Your task to perform on an android device: Go to battery settings Image 0: 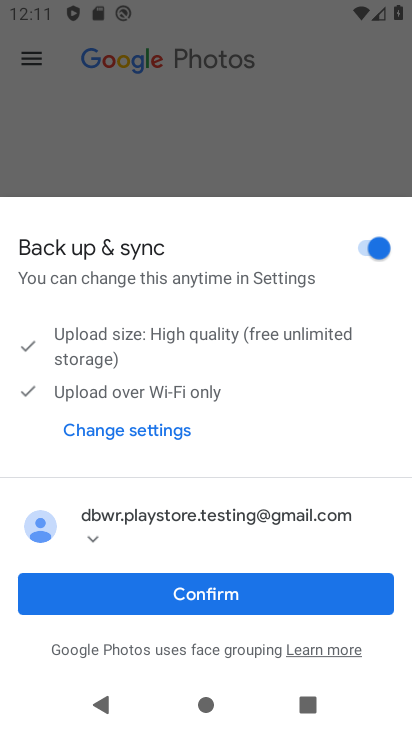
Step 0: press back button
Your task to perform on an android device: Go to battery settings Image 1: 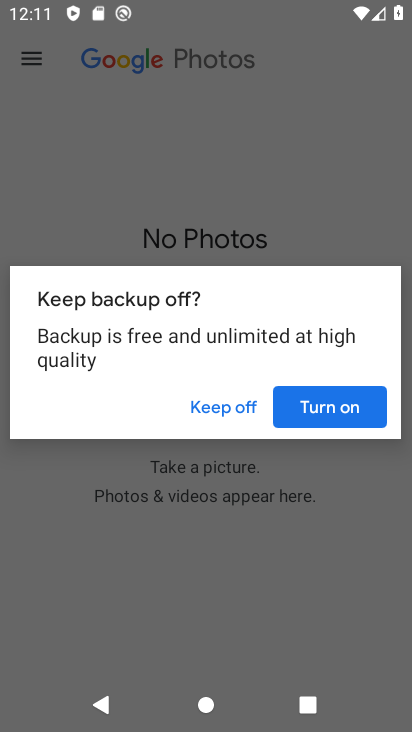
Step 1: press back button
Your task to perform on an android device: Go to battery settings Image 2: 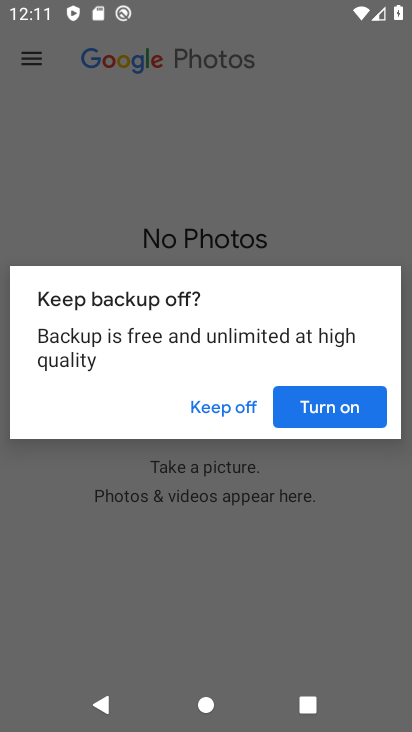
Step 2: press home button
Your task to perform on an android device: Go to battery settings Image 3: 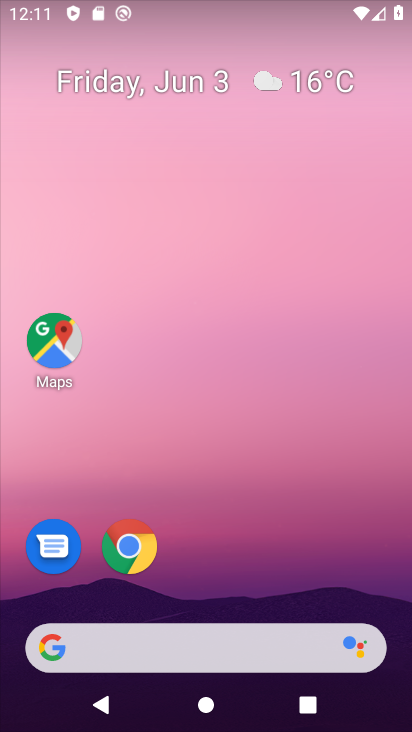
Step 3: drag from (251, 406) to (318, 23)
Your task to perform on an android device: Go to battery settings Image 4: 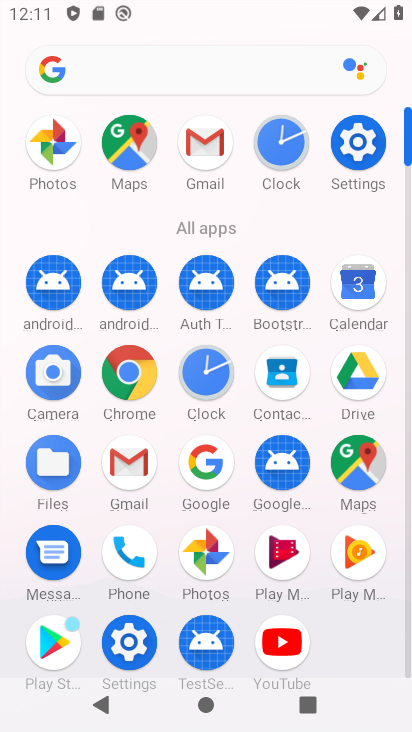
Step 4: click (361, 136)
Your task to perform on an android device: Go to battery settings Image 5: 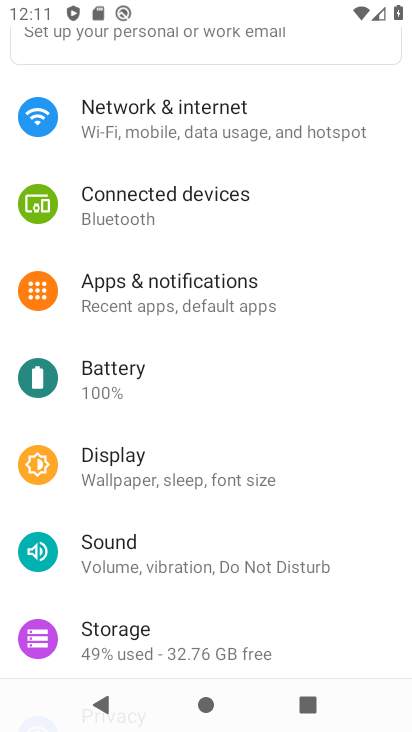
Step 5: click (124, 249)
Your task to perform on an android device: Go to battery settings Image 6: 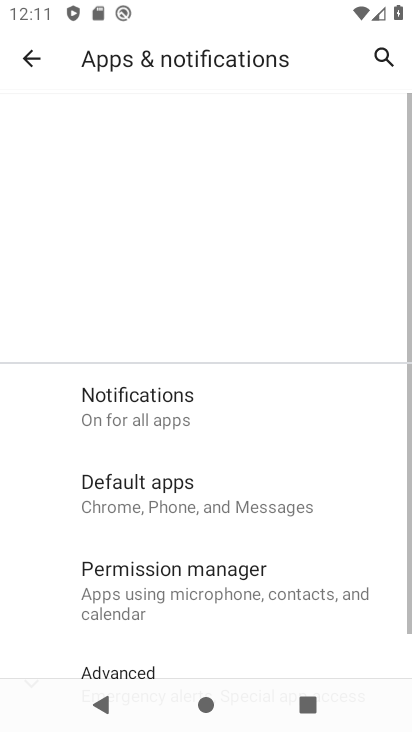
Step 6: press back button
Your task to perform on an android device: Go to battery settings Image 7: 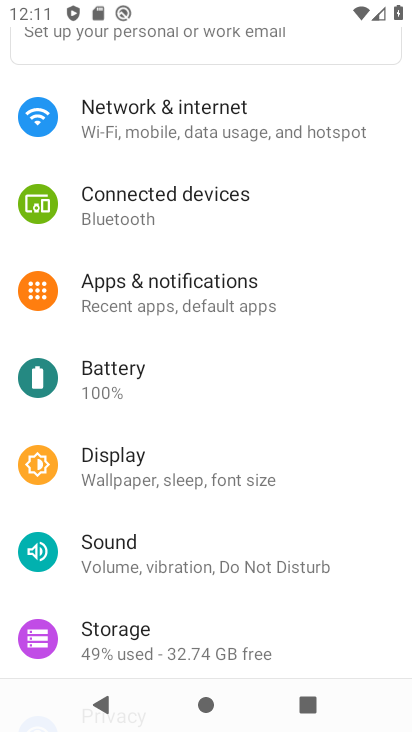
Step 7: click (115, 395)
Your task to perform on an android device: Go to battery settings Image 8: 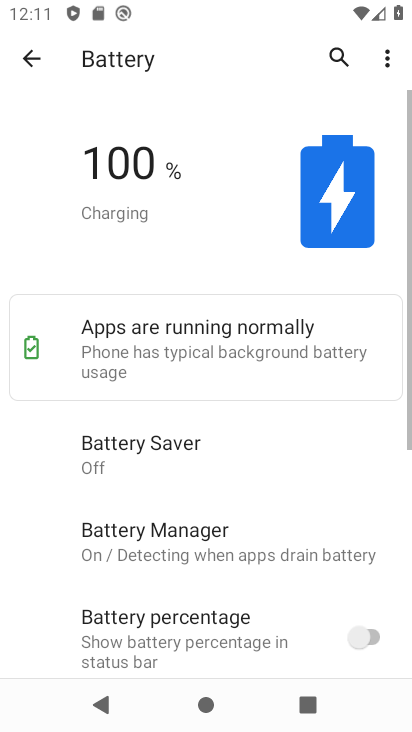
Step 8: task complete